Your task to perform on an android device: Open Youtube and go to "Your channel" Image 0: 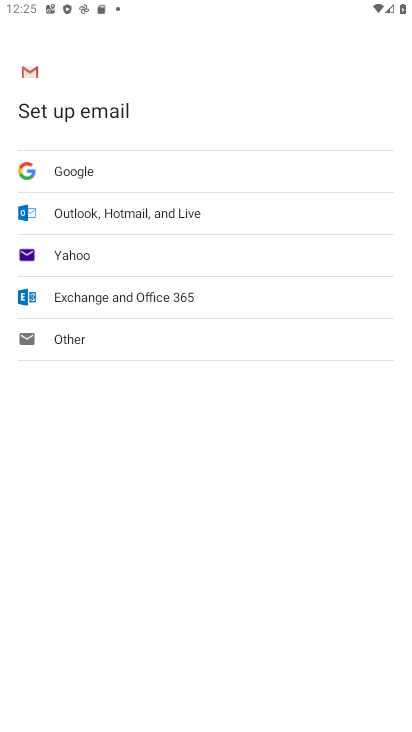
Step 0: press home button
Your task to perform on an android device: Open Youtube and go to "Your channel" Image 1: 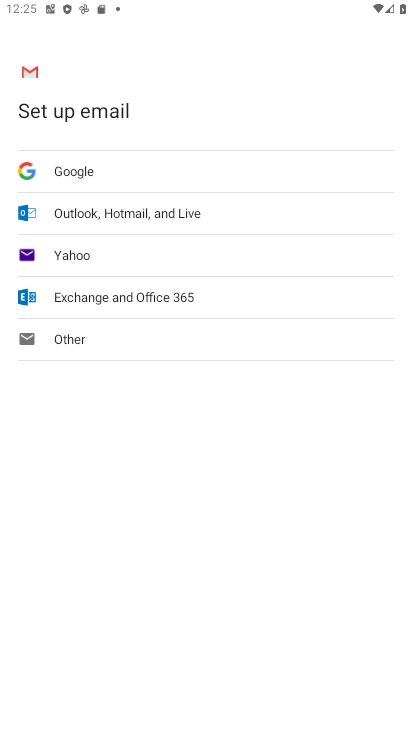
Step 1: press home button
Your task to perform on an android device: Open Youtube and go to "Your channel" Image 2: 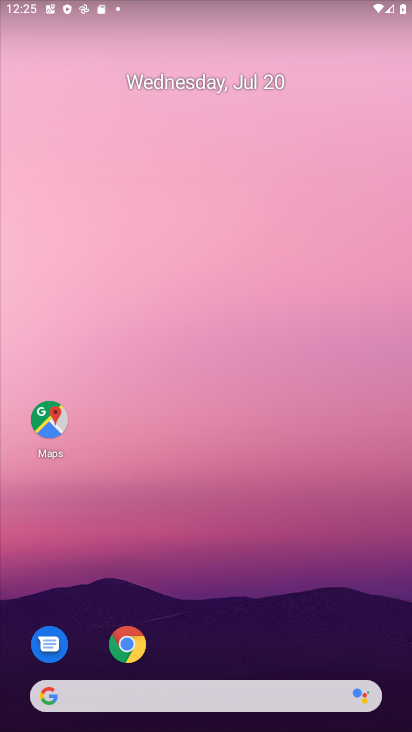
Step 2: drag from (182, 612) to (197, 26)
Your task to perform on an android device: Open Youtube and go to "Your channel" Image 3: 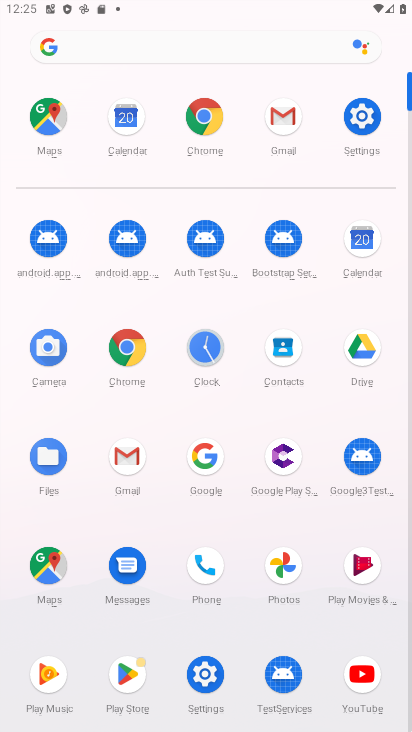
Step 3: click (365, 679)
Your task to perform on an android device: Open Youtube and go to "Your channel" Image 4: 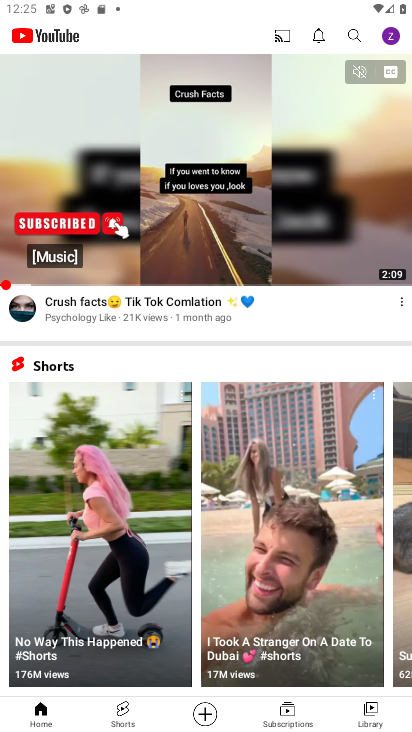
Step 4: click (386, 47)
Your task to perform on an android device: Open Youtube and go to "Your channel" Image 5: 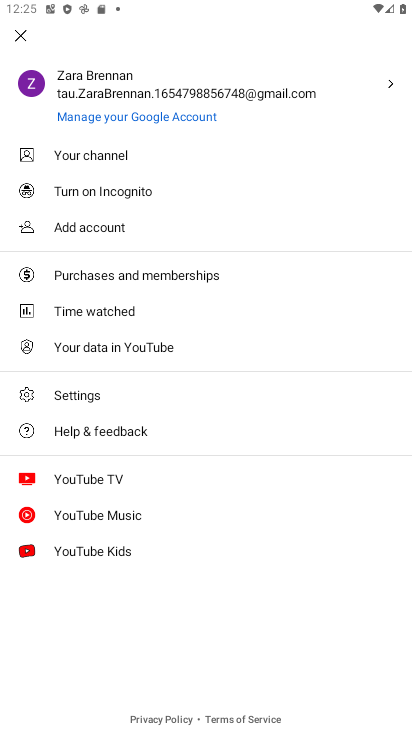
Step 5: click (90, 158)
Your task to perform on an android device: Open Youtube and go to "Your channel" Image 6: 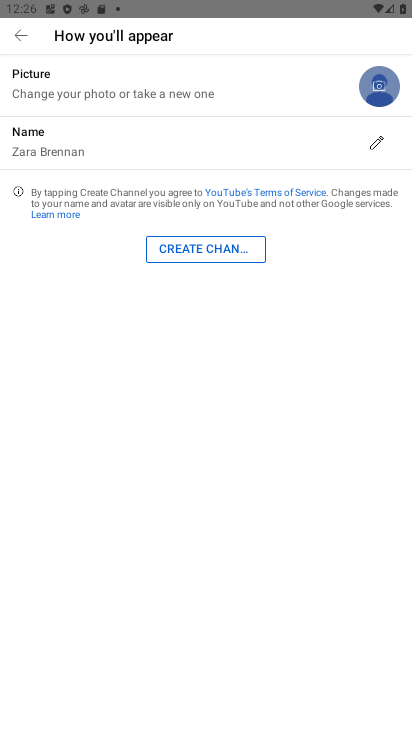
Step 6: task complete